Your task to perform on an android device: toggle location history Image 0: 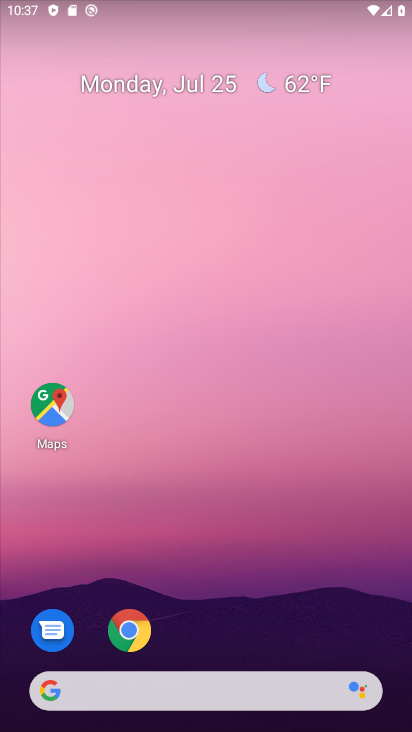
Step 0: drag from (184, 630) to (261, 243)
Your task to perform on an android device: toggle location history Image 1: 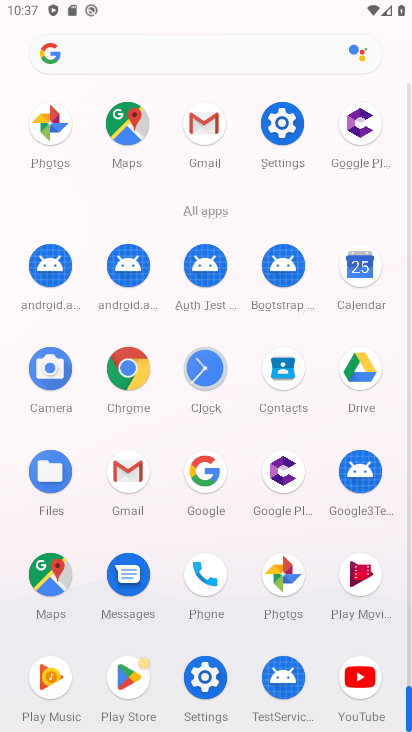
Step 1: click (208, 675)
Your task to perform on an android device: toggle location history Image 2: 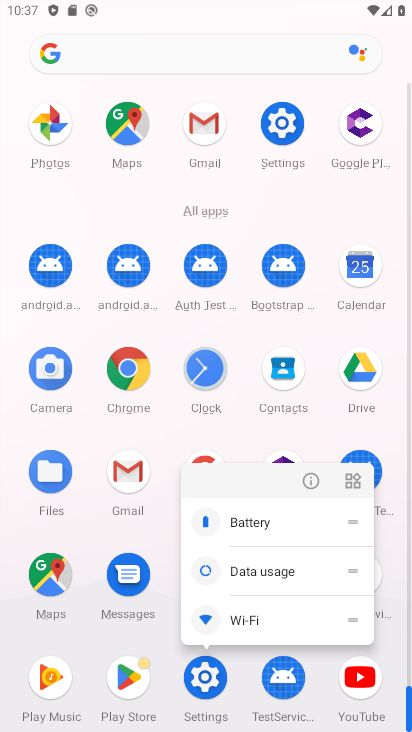
Step 2: click (307, 479)
Your task to perform on an android device: toggle location history Image 3: 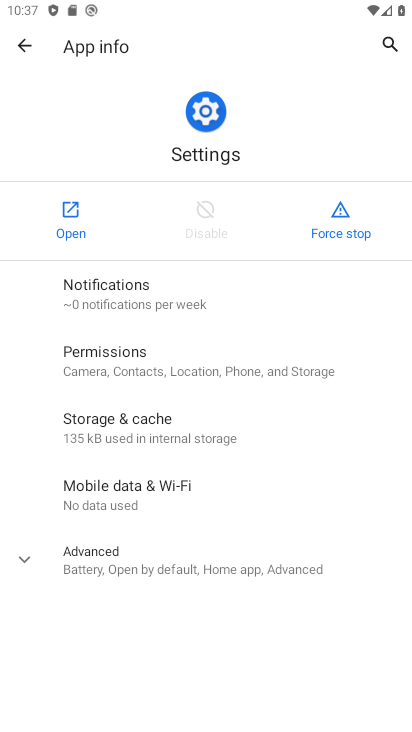
Step 3: click (70, 229)
Your task to perform on an android device: toggle location history Image 4: 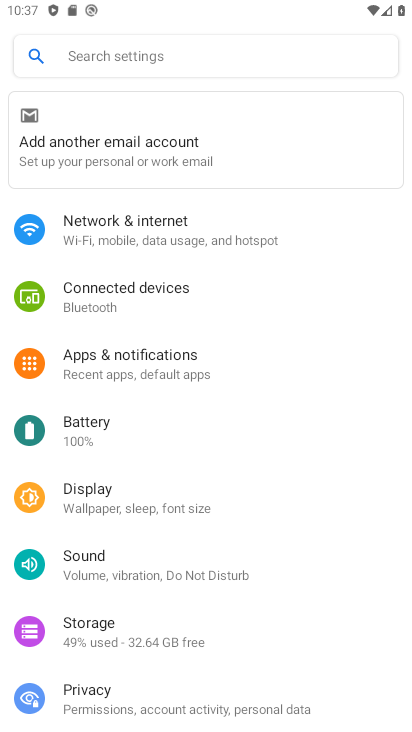
Step 4: drag from (128, 626) to (197, 158)
Your task to perform on an android device: toggle location history Image 5: 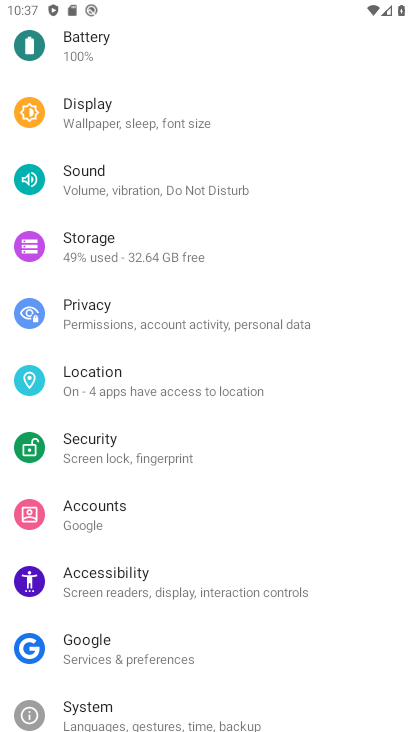
Step 5: click (141, 372)
Your task to perform on an android device: toggle location history Image 6: 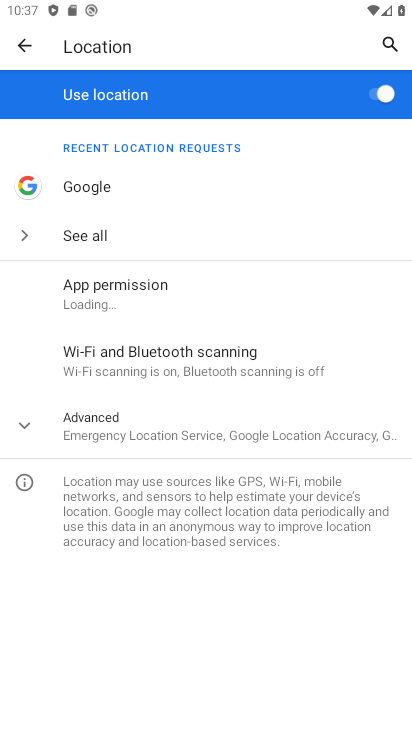
Step 6: drag from (199, 646) to (289, 169)
Your task to perform on an android device: toggle location history Image 7: 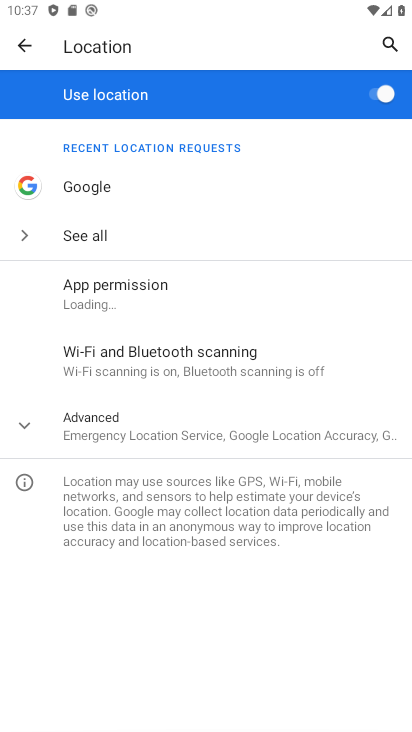
Step 7: click (110, 403)
Your task to perform on an android device: toggle location history Image 8: 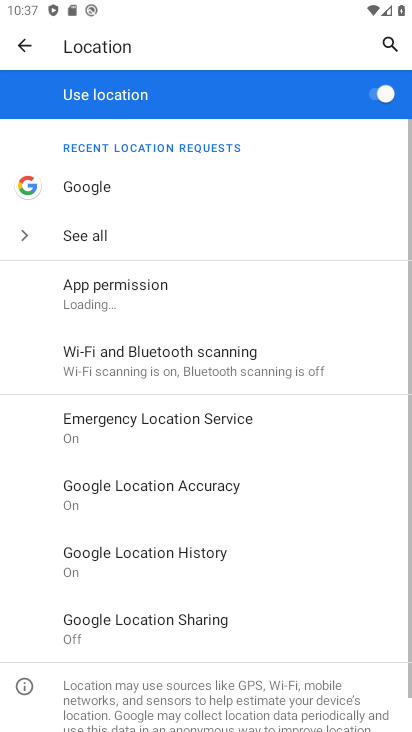
Step 8: drag from (246, 560) to (299, 308)
Your task to perform on an android device: toggle location history Image 9: 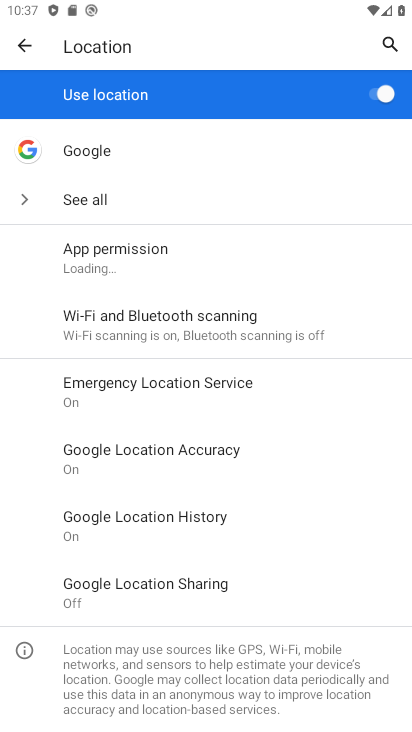
Step 9: click (158, 518)
Your task to perform on an android device: toggle location history Image 10: 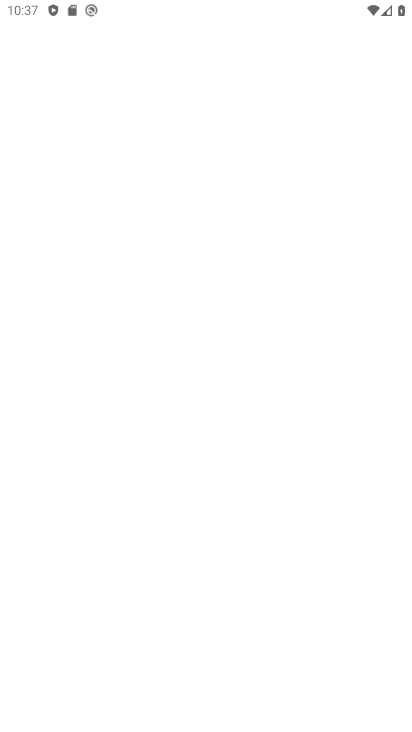
Step 10: drag from (233, 510) to (273, 198)
Your task to perform on an android device: toggle location history Image 11: 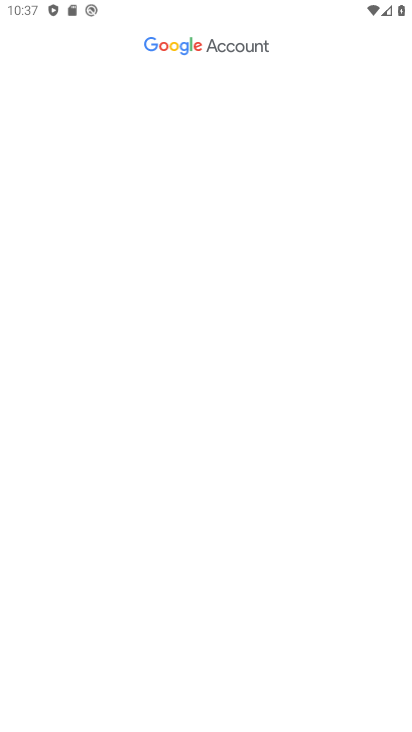
Step 11: drag from (260, 471) to (260, 281)
Your task to perform on an android device: toggle location history Image 12: 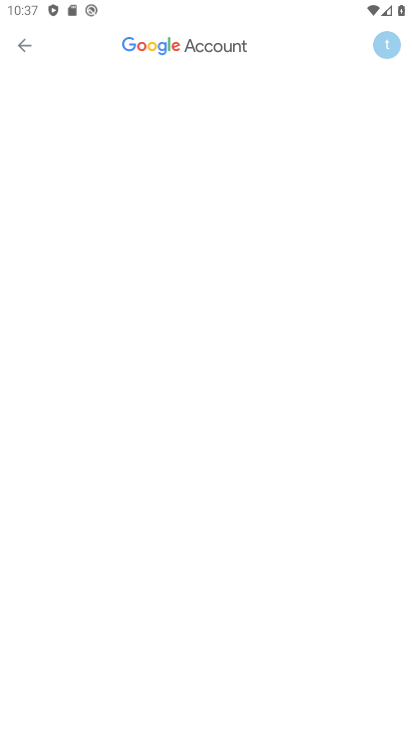
Step 12: drag from (173, 433) to (233, 102)
Your task to perform on an android device: toggle location history Image 13: 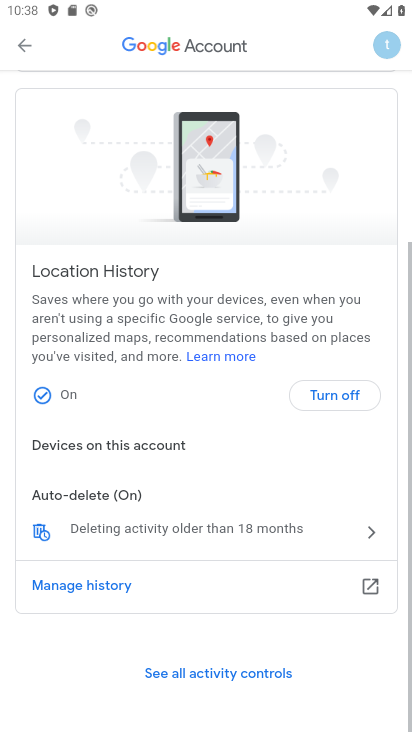
Step 13: drag from (190, 614) to (228, 410)
Your task to perform on an android device: toggle location history Image 14: 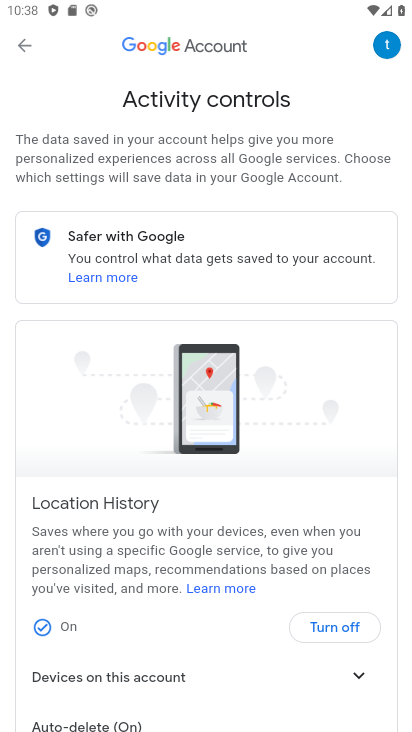
Step 14: drag from (292, 329) to (359, 35)
Your task to perform on an android device: toggle location history Image 15: 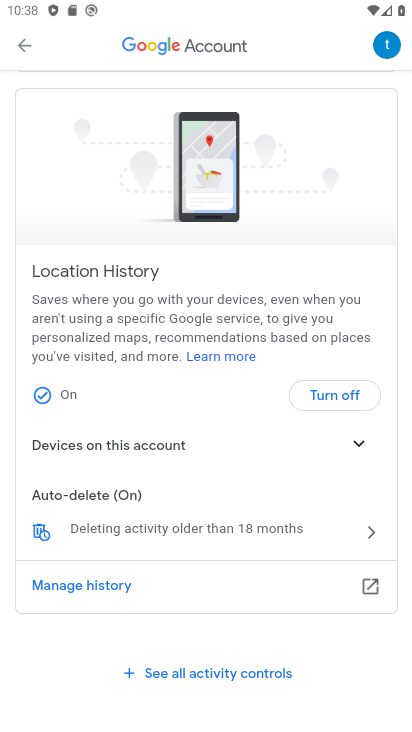
Step 15: click (345, 397)
Your task to perform on an android device: toggle location history Image 16: 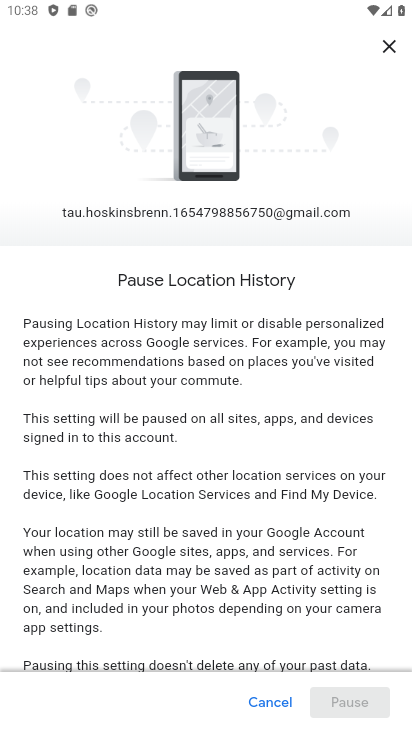
Step 16: drag from (232, 552) to (309, 30)
Your task to perform on an android device: toggle location history Image 17: 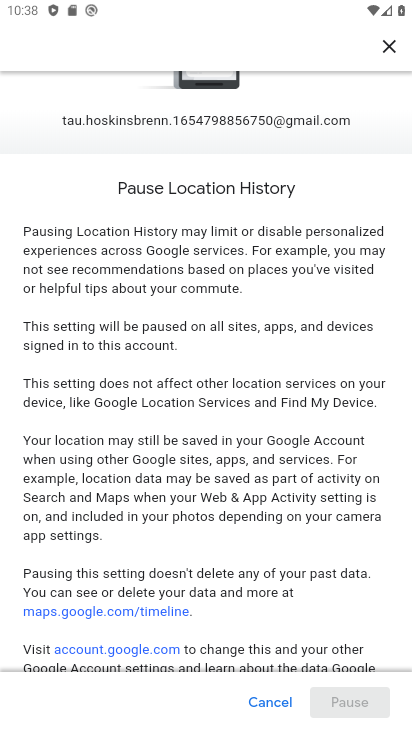
Step 17: drag from (195, 625) to (302, 159)
Your task to perform on an android device: toggle location history Image 18: 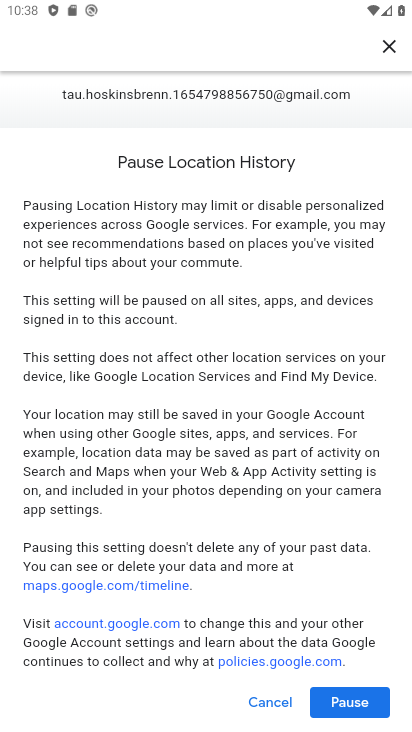
Step 18: click (354, 704)
Your task to perform on an android device: toggle location history Image 19: 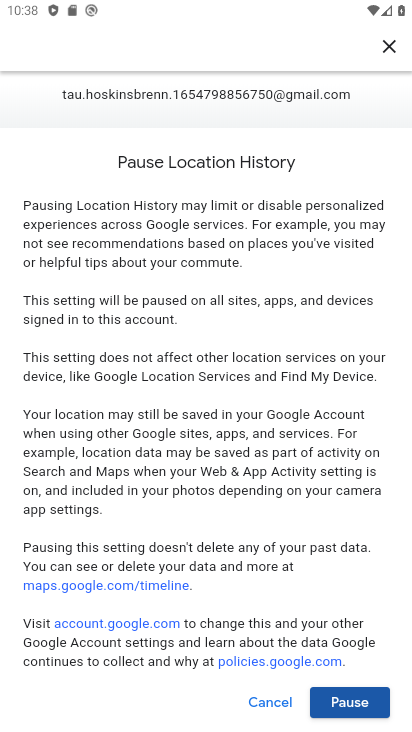
Step 19: click (348, 713)
Your task to perform on an android device: toggle location history Image 20: 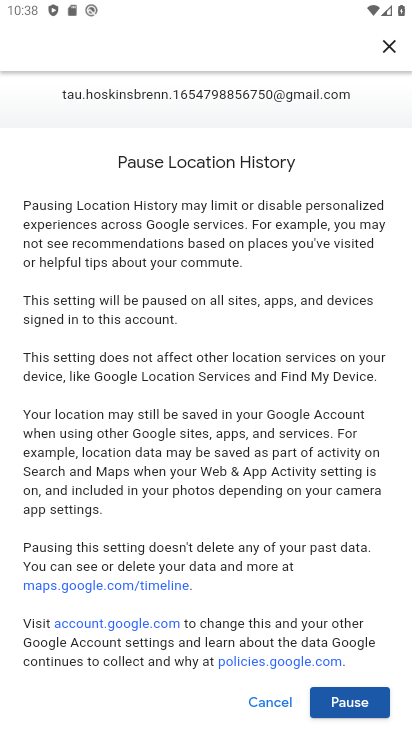
Step 20: task complete